Your task to perform on an android device: What is the speed of a cheetah? Image 0: 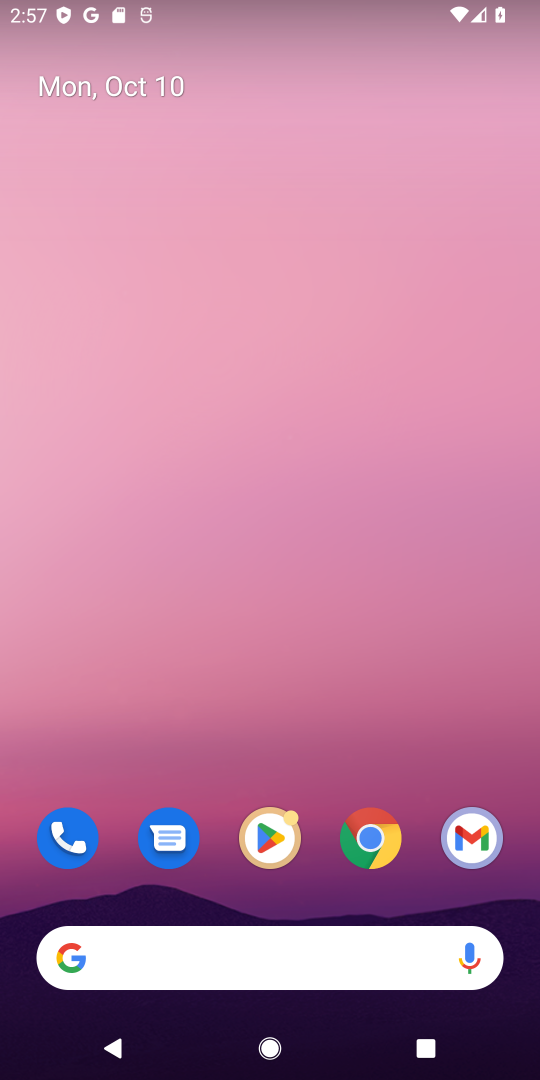
Step 0: click (288, 944)
Your task to perform on an android device: What is the speed of a cheetah? Image 1: 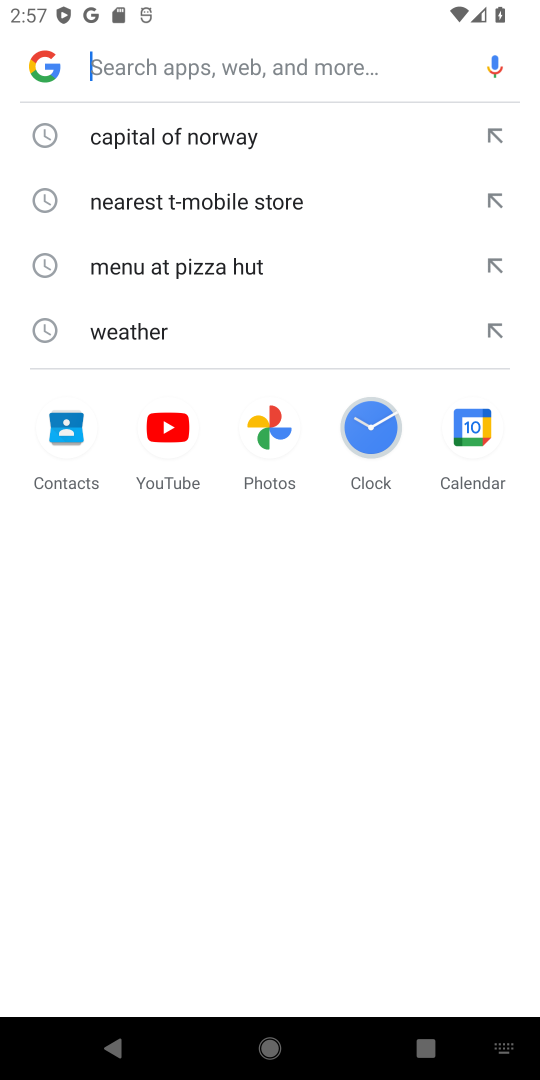
Step 1: type "speed of a cheetah"
Your task to perform on an android device: What is the speed of a cheetah? Image 2: 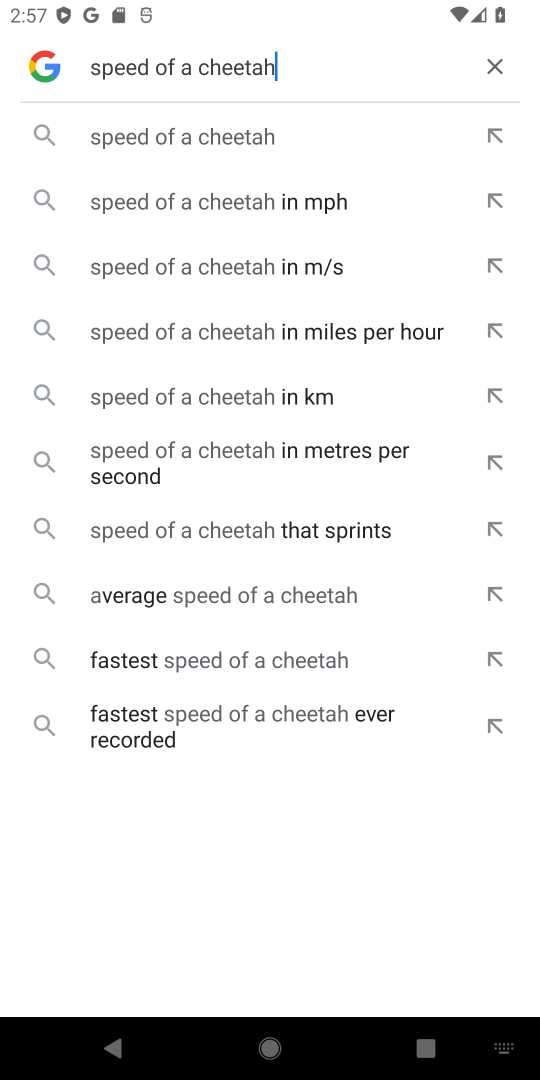
Step 2: click (212, 122)
Your task to perform on an android device: What is the speed of a cheetah? Image 3: 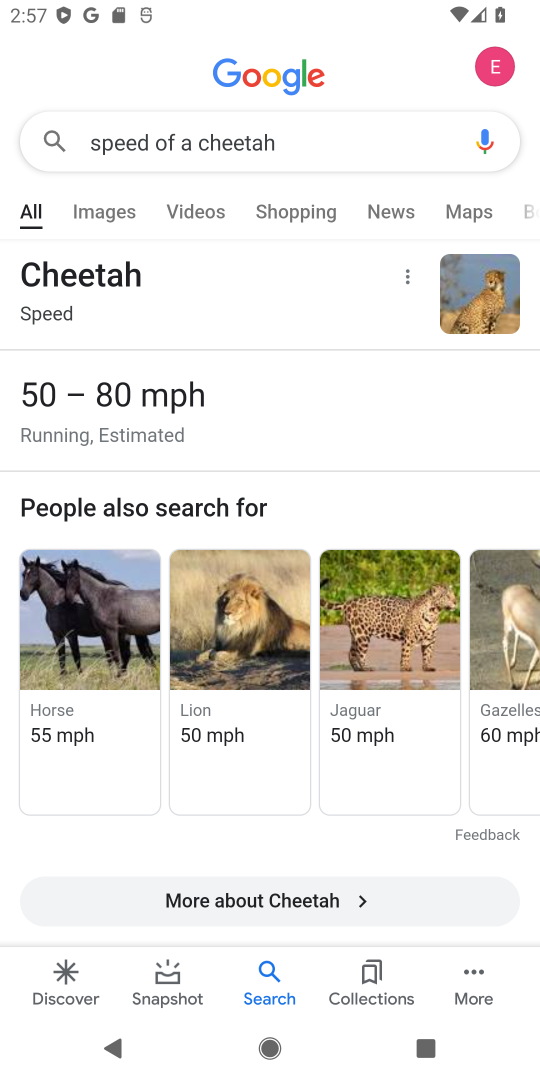
Step 3: task complete